Your task to perform on an android device: Open settings on Google Maps Image 0: 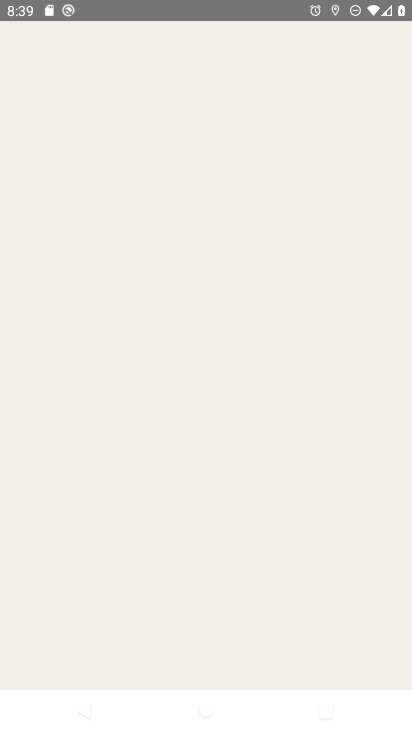
Step 0: press home button
Your task to perform on an android device: Open settings on Google Maps Image 1: 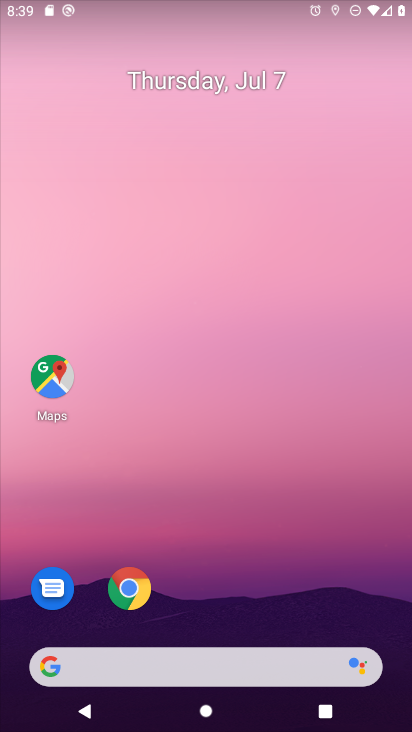
Step 1: drag from (235, 613) to (266, 254)
Your task to perform on an android device: Open settings on Google Maps Image 2: 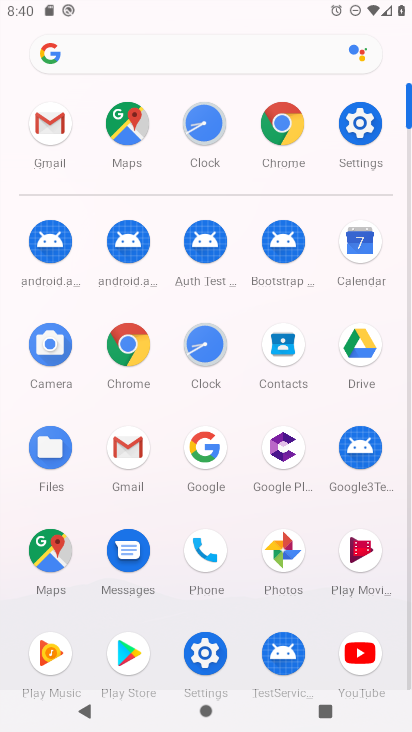
Step 2: click (45, 545)
Your task to perform on an android device: Open settings on Google Maps Image 3: 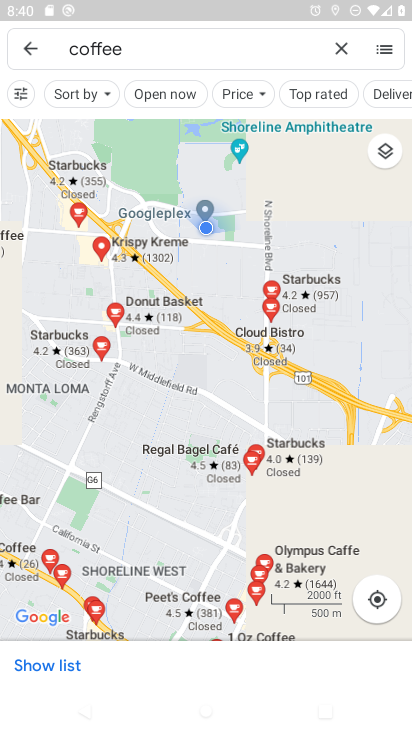
Step 3: click (335, 47)
Your task to perform on an android device: Open settings on Google Maps Image 4: 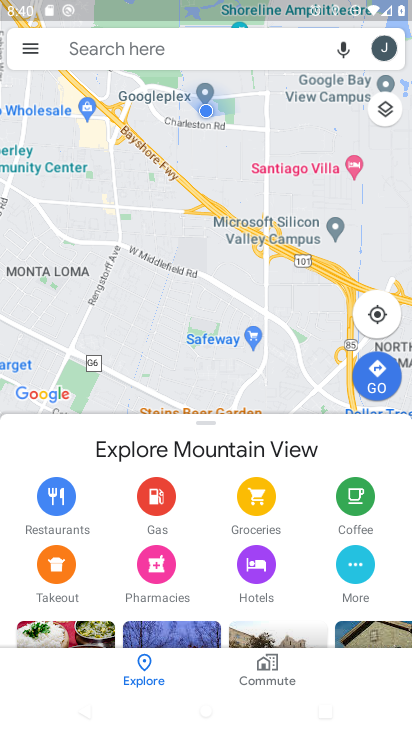
Step 4: task complete